Your task to perform on an android device: Add apple airpods pro to the cart on target.com, then select checkout. Image 0: 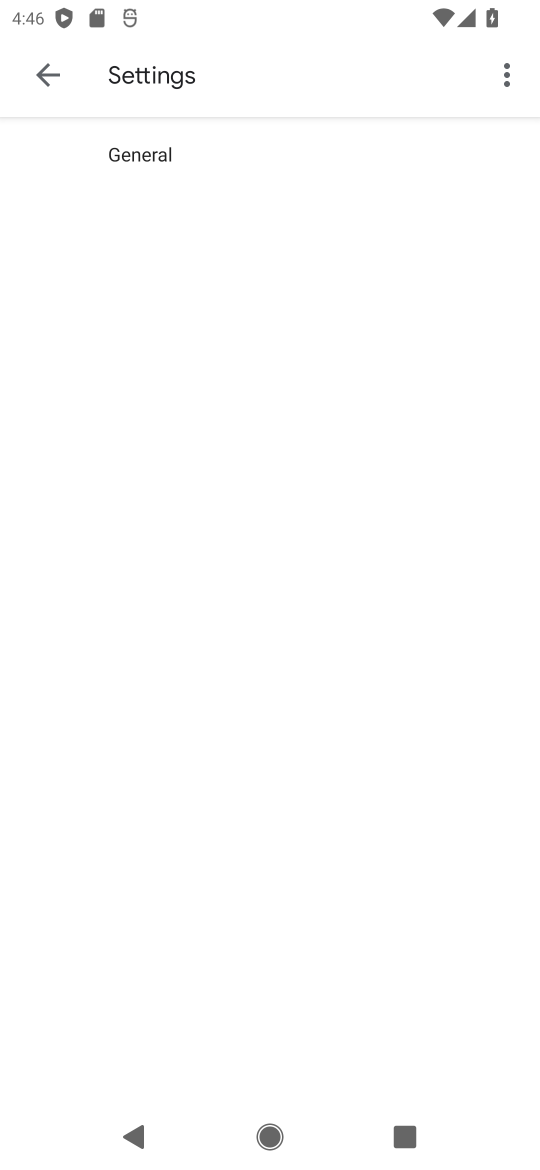
Step 0: press home button
Your task to perform on an android device: Add apple airpods pro to the cart on target.com, then select checkout. Image 1: 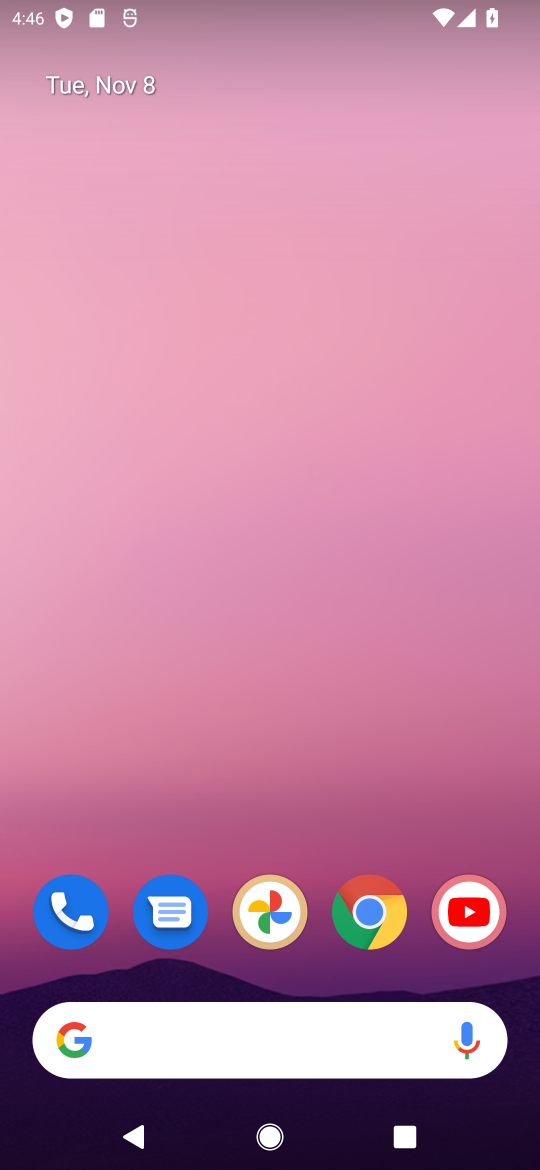
Step 1: click (378, 917)
Your task to perform on an android device: Add apple airpods pro to the cart on target.com, then select checkout. Image 2: 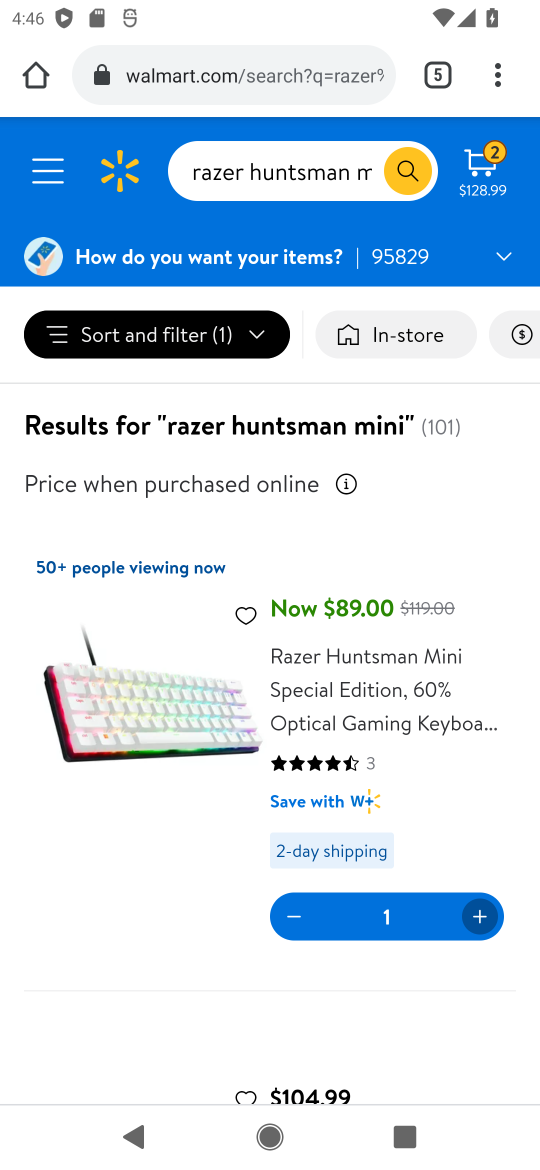
Step 2: click (434, 75)
Your task to perform on an android device: Add apple airpods pro to the cart on target.com, then select checkout. Image 3: 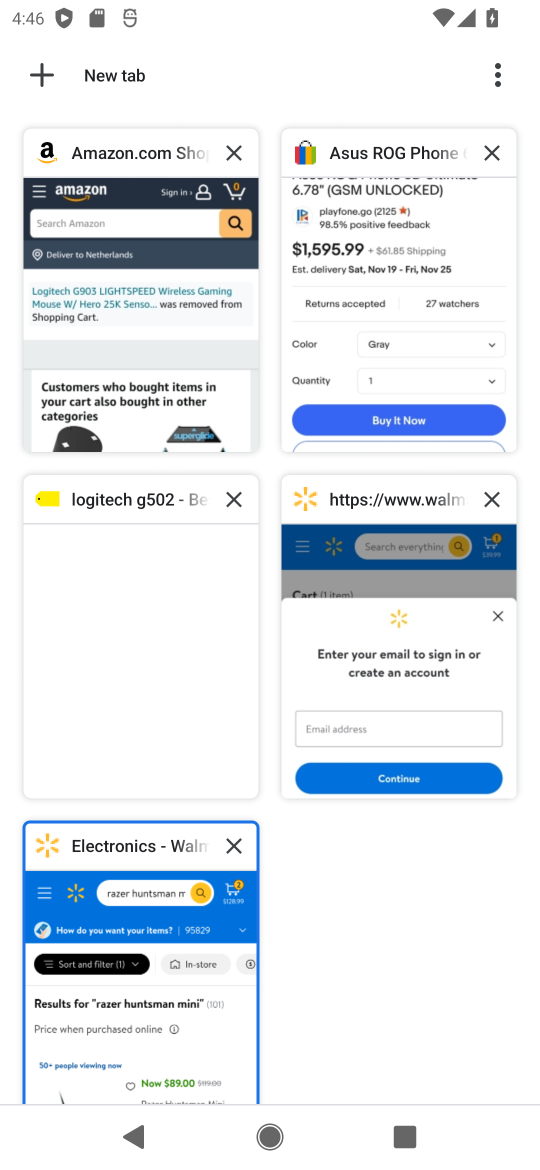
Step 3: click (238, 846)
Your task to perform on an android device: Add apple airpods pro to the cart on target.com, then select checkout. Image 4: 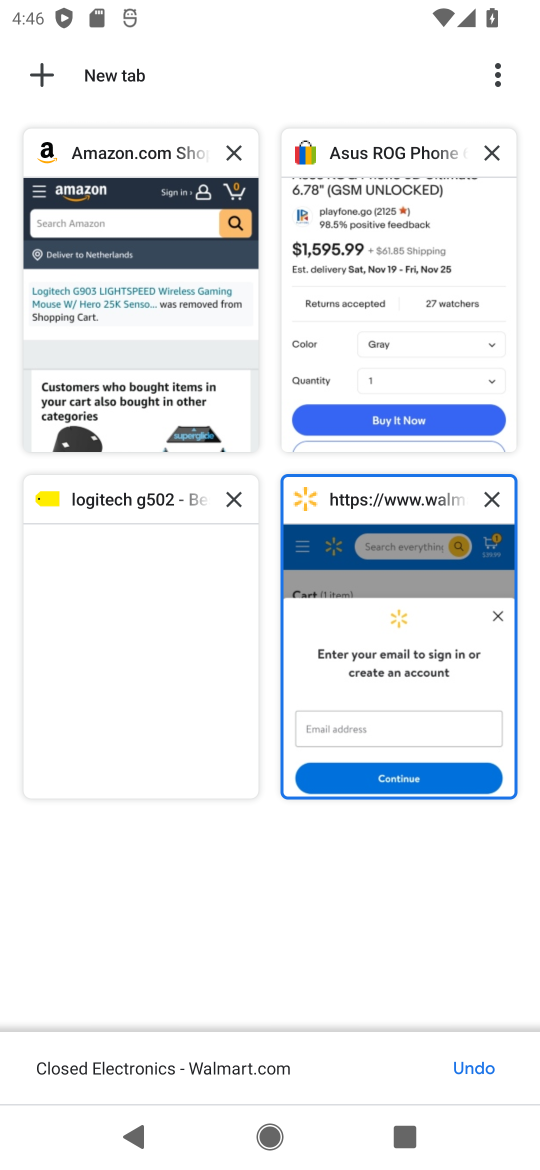
Step 4: click (52, 64)
Your task to perform on an android device: Add apple airpods pro to the cart on target.com, then select checkout. Image 5: 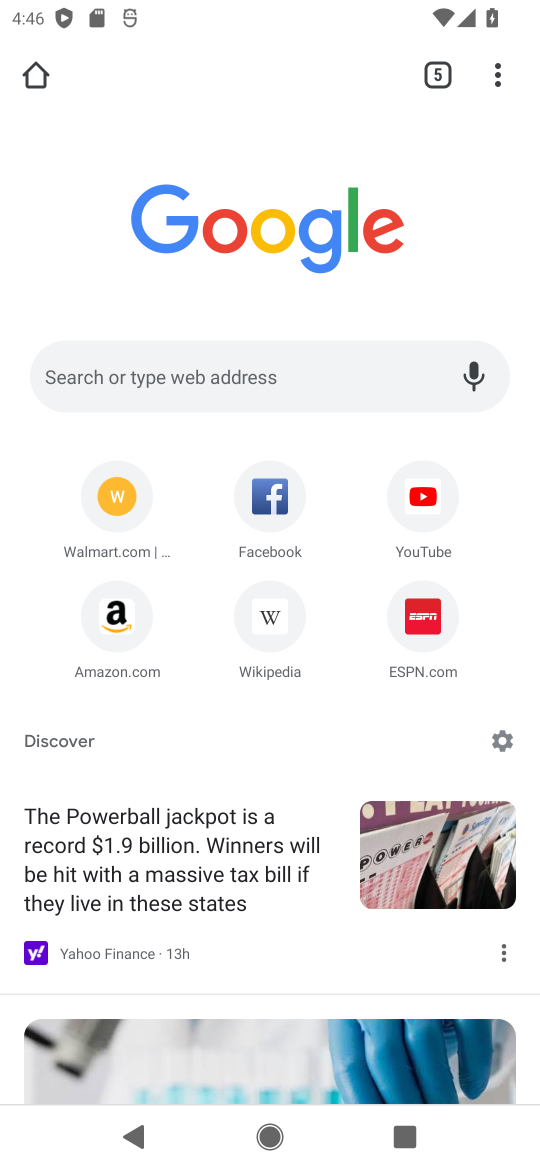
Step 5: click (165, 367)
Your task to perform on an android device: Add apple airpods pro to the cart on target.com, then select checkout. Image 6: 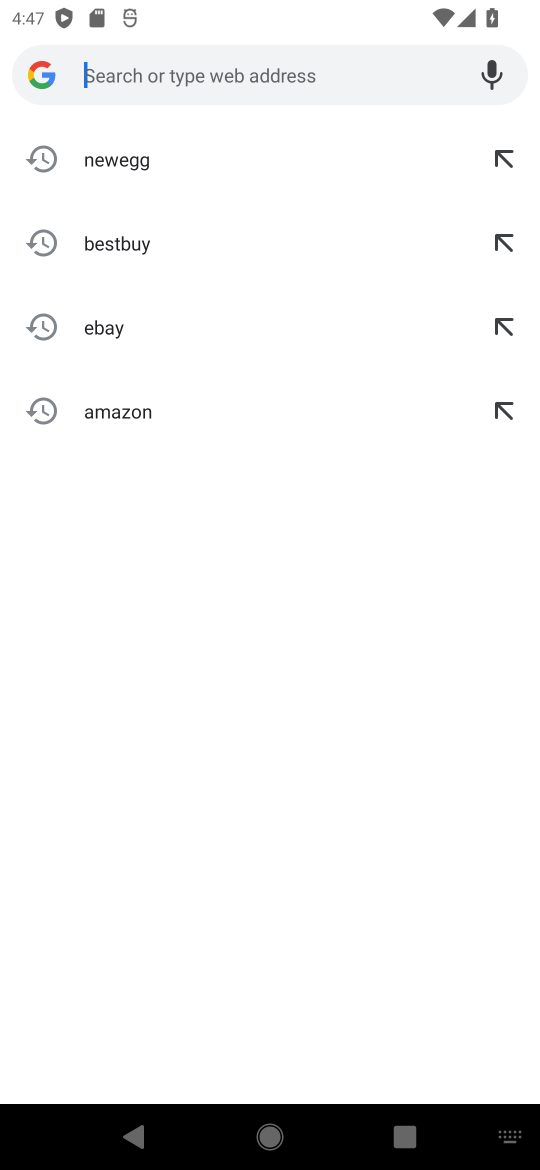
Step 6: type "target"
Your task to perform on an android device: Add apple airpods pro to the cart on target.com, then select checkout. Image 7: 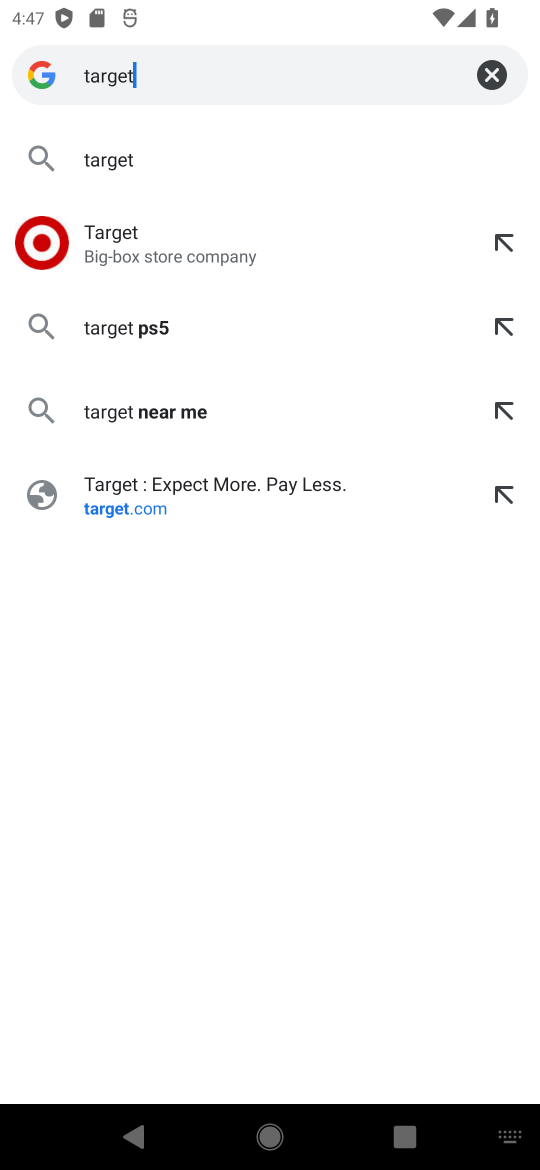
Step 7: click (153, 243)
Your task to perform on an android device: Add apple airpods pro to the cart on target.com, then select checkout. Image 8: 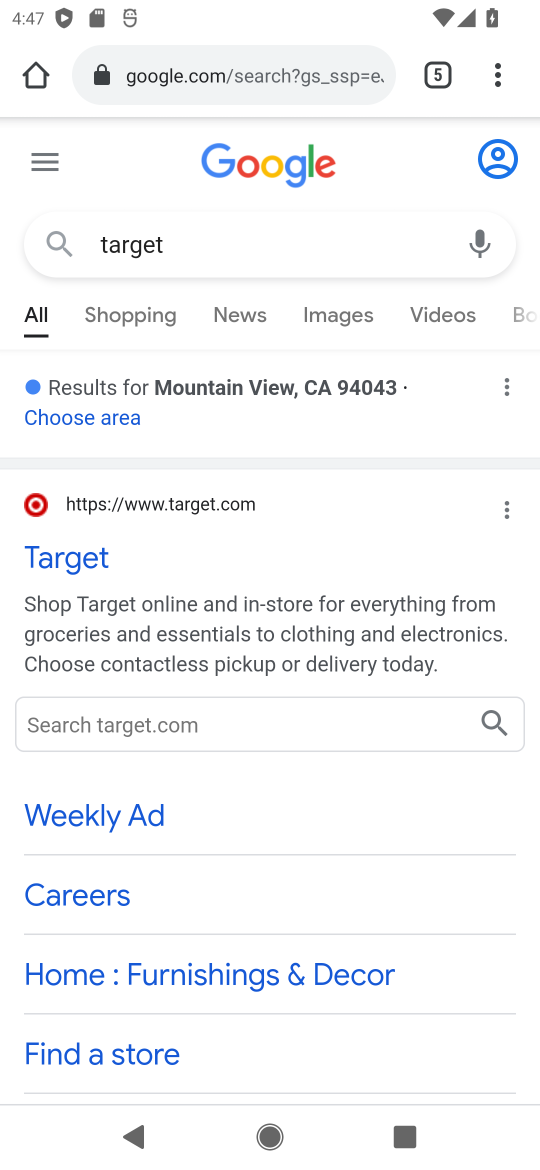
Step 8: click (76, 725)
Your task to perform on an android device: Add apple airpods pro to the cart on target.com, then select checkout. Image 9: 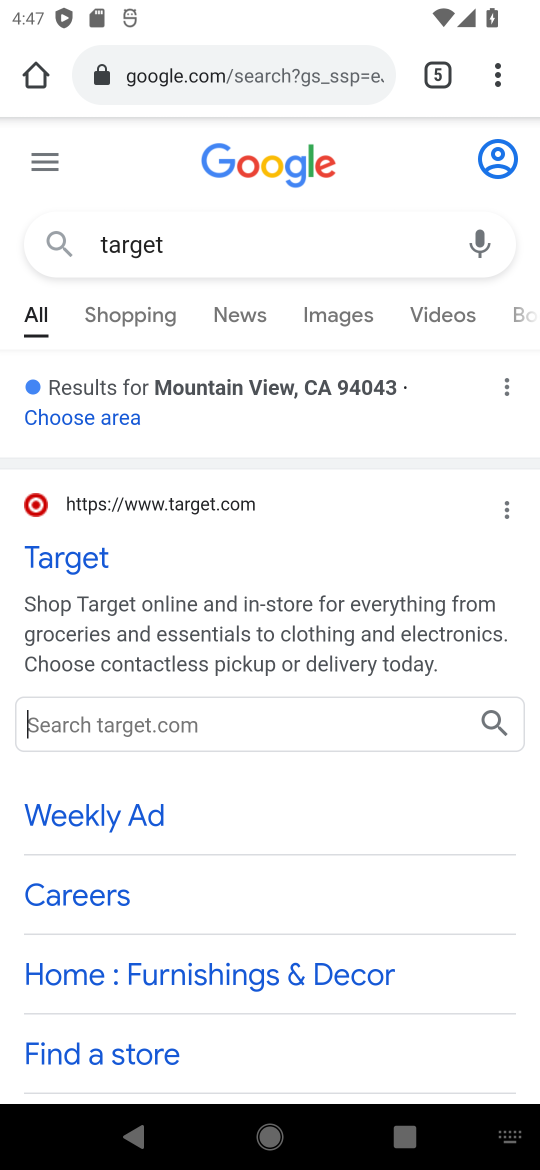
Step 9: type "apple airpods pro "
Your task to perform on an android device: Add apple airpods pro to the cart on target.com, then select checkout. Image 10: 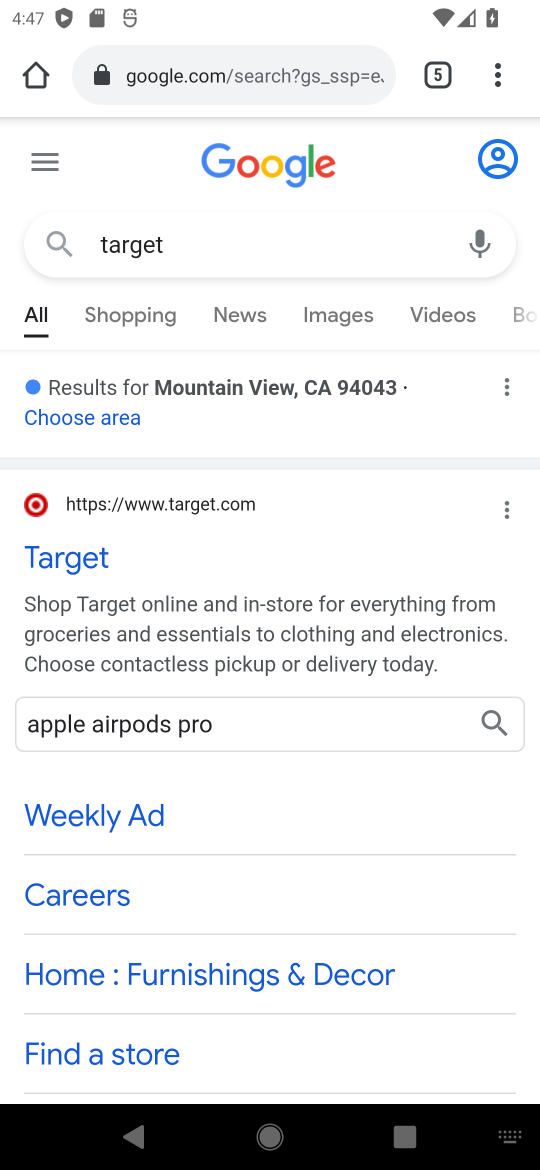
Step 10: click (499, 722)
Your task to perform on an android device: Add apple airpods pro to the cart on target.com, then select checkout. Image 11: 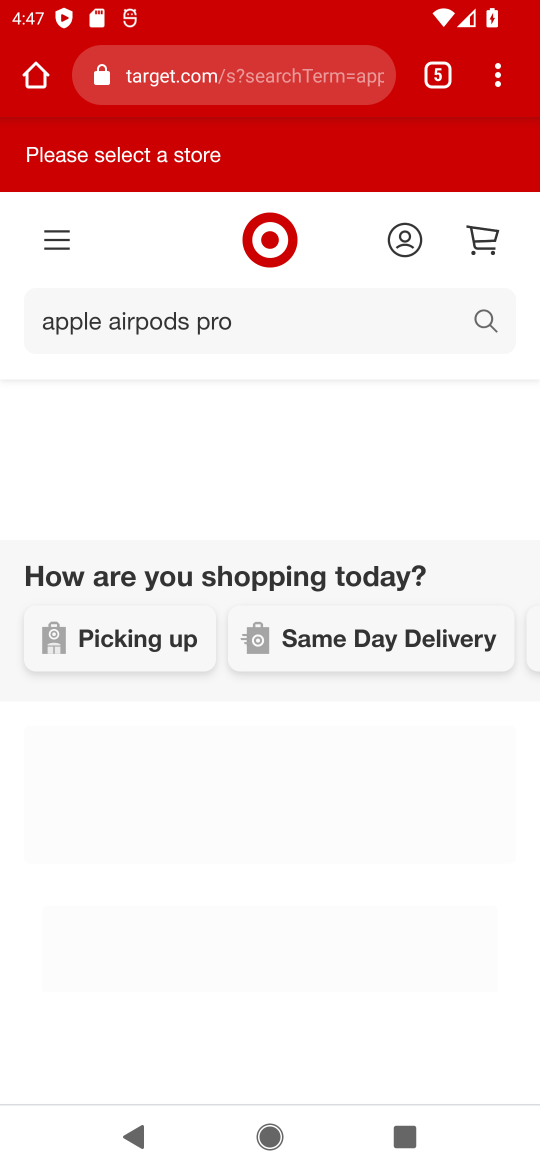
Step 11: drag from (352, 988) to (283, 279)
Your task to perform on an android device: Add apple airpods pro to the cart on target.com, then select checkout. Image 12: 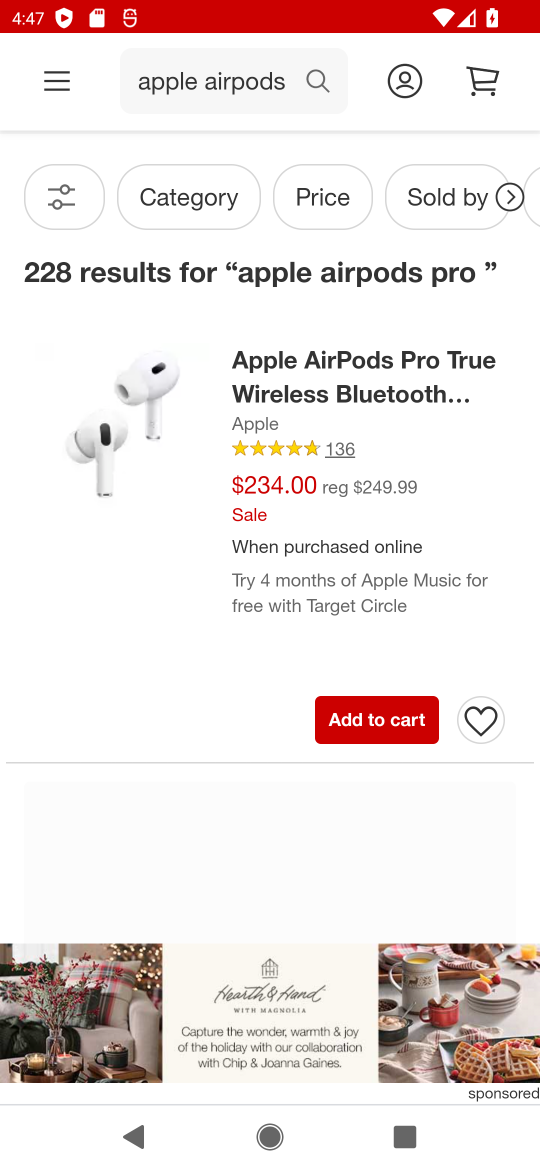
Step 12: click (353, 719)
Your task to perform on an android device: Add apple airpods pro to the cart on target.com, then select checkout. Image 13: 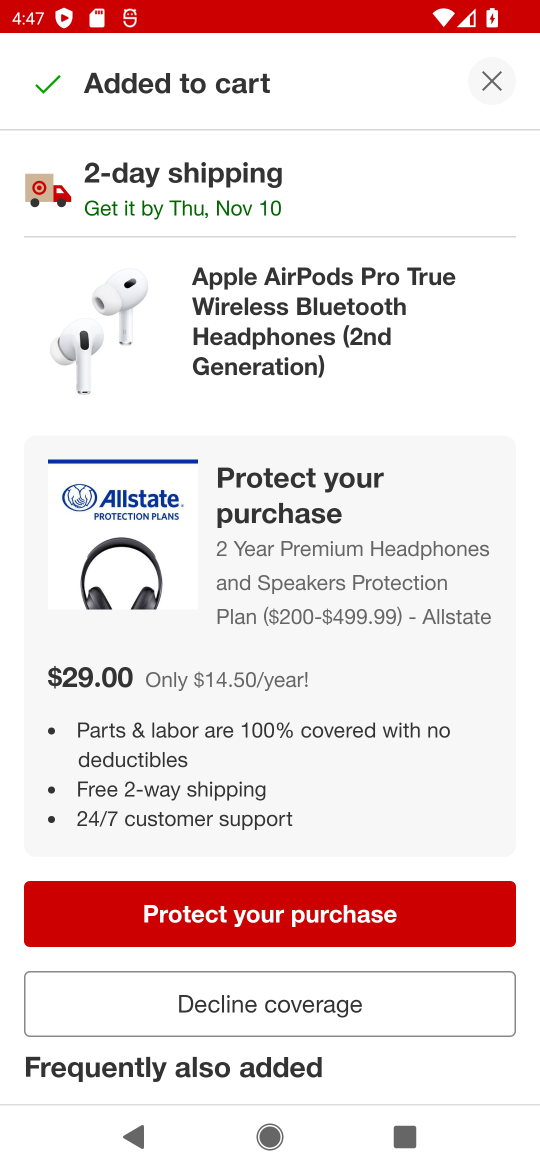
Step 13: click (332, 999)
Your task to perform on an android device: Add apple airpods pro to the cart on target.com, then select checkout. Image 14: 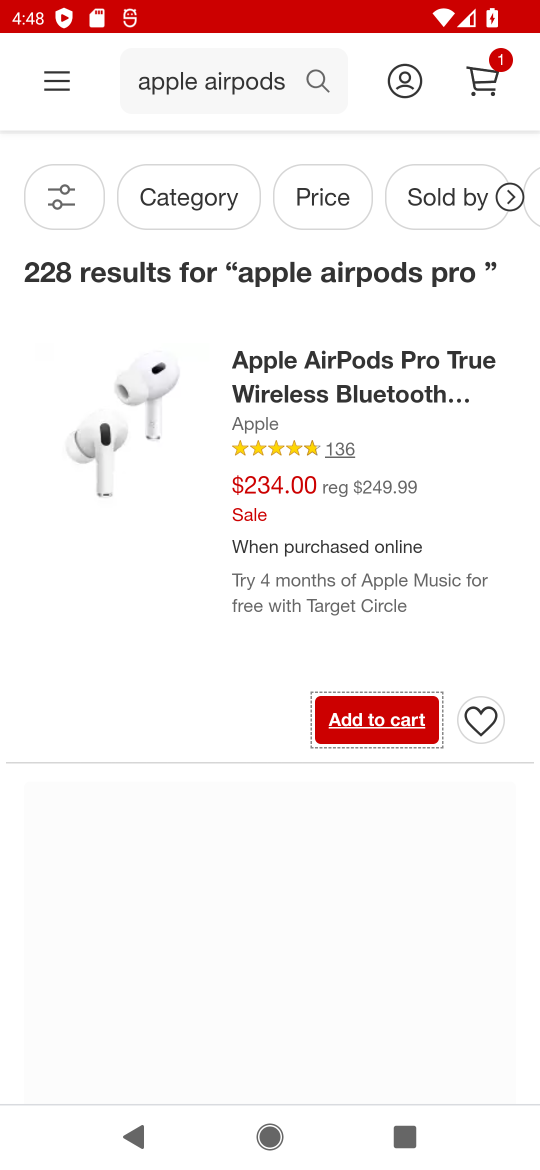
Step 14: click (487, 74)
Your task to perform on an android device: Add apple airpods pro to the cart on target.com, then select checkout. Image 15: 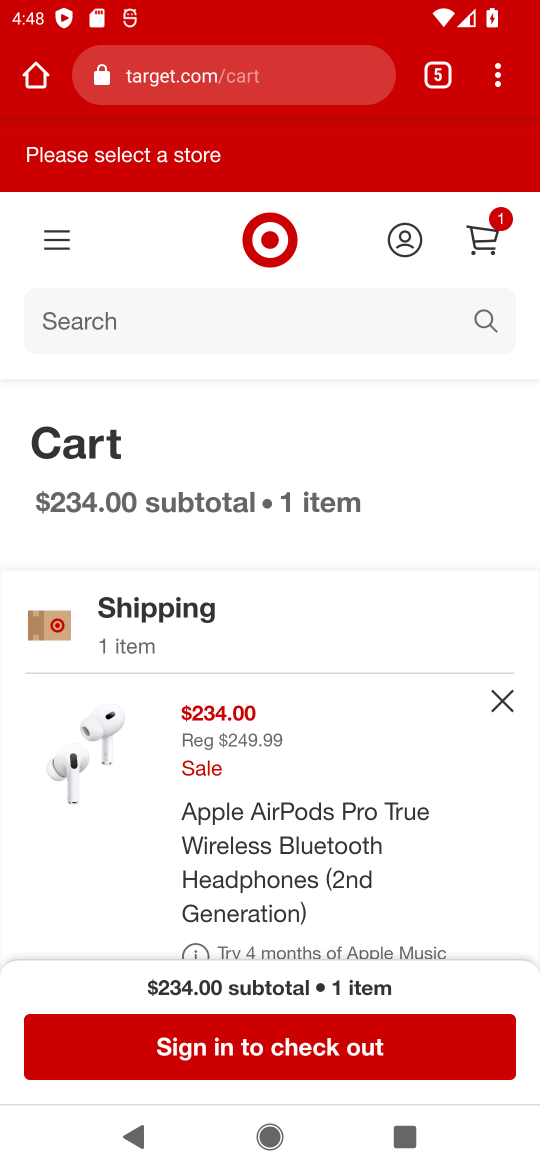
Step 15: click (283, 1046)
Your task to perform on an android device: Add apple airpods pro to the cart on target.com, then select checkout. Image 16: 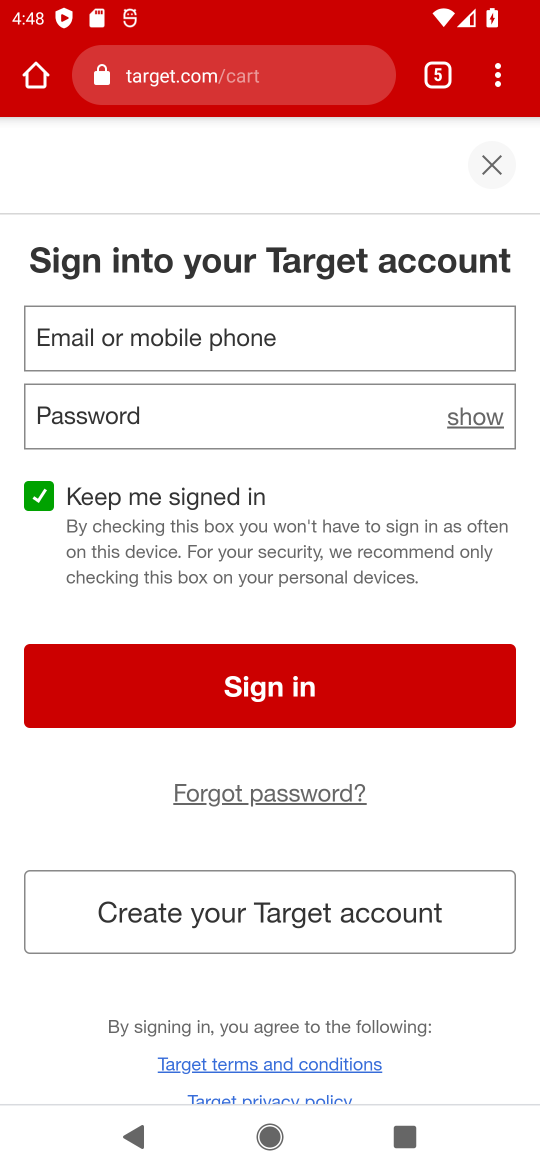
Step 16: task complete